Your task to perform on an android device: see sites visited before in the chrome app Image 0: 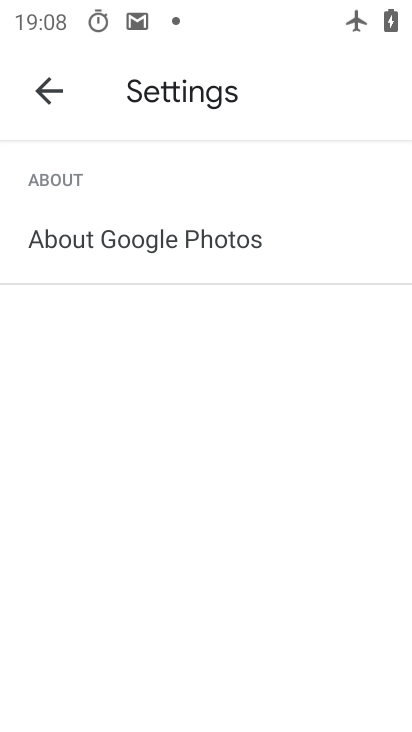
Step 0: press home button
Your task to perform on an android device: see sites visited before in the chrome app Image 1: 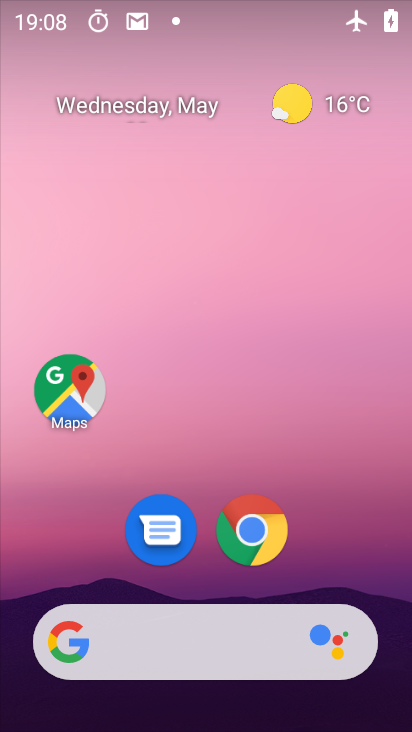
Step 1: click (253, 529)
Your task to perform on an android device: see sites visited before in the chrome app Image 2: 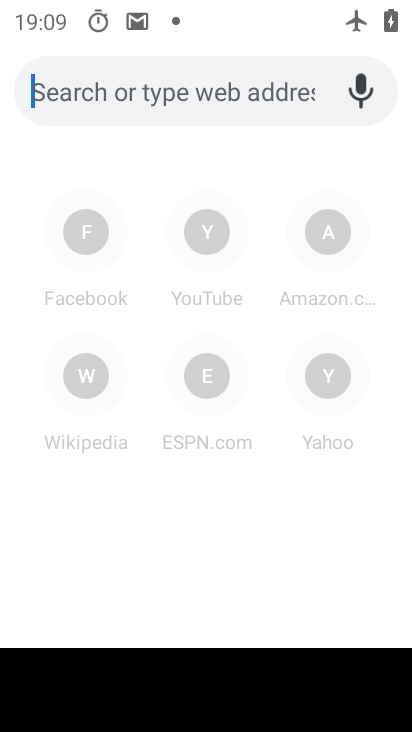
Step 2: click (153, 257)
Your task to perform on an android device: see sites visited before in the chrome app Image 3: 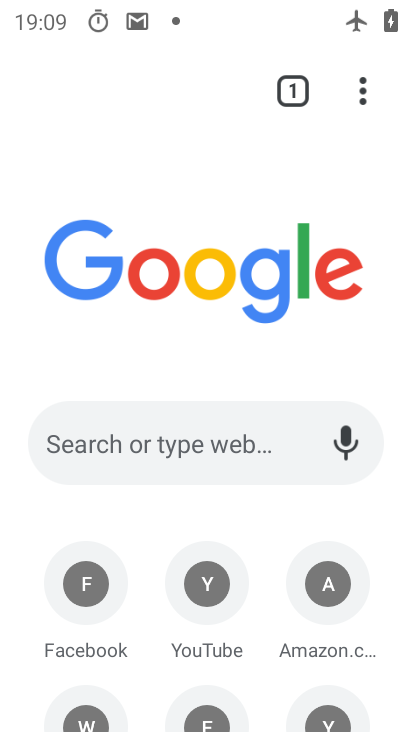
Step 3: click (364, 97)
Your task to perform on an android device: see sites visited before in the chrome app Image 4: 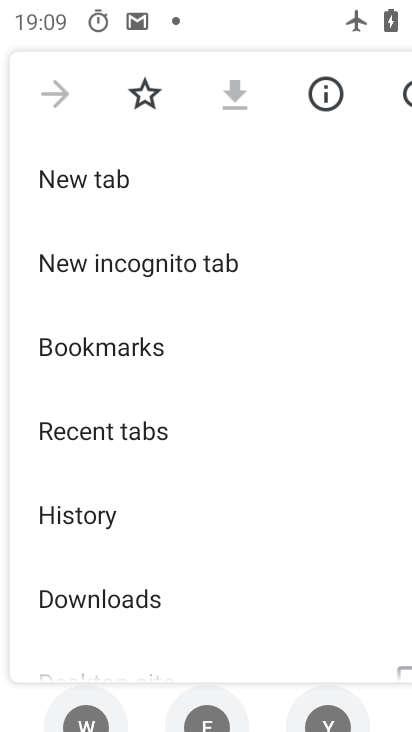
Step 4: click (173, 443)
Your task to perform on an android device: see sites visited before in the chrome app Image 5: 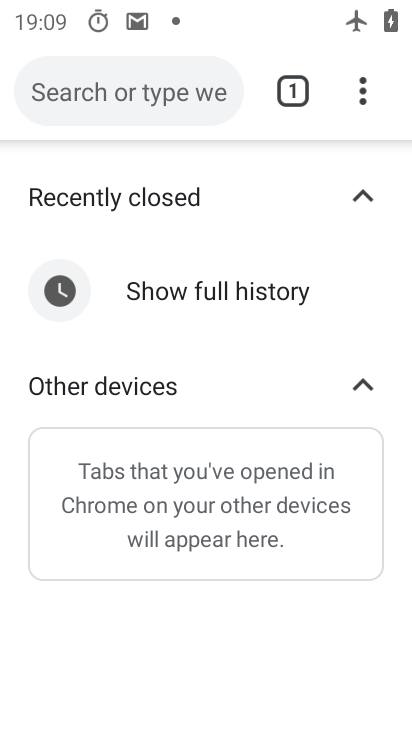
Step 5: click (205, 306)
Your task to perform on an android device: see sites visited before in the chrome app Image 6: 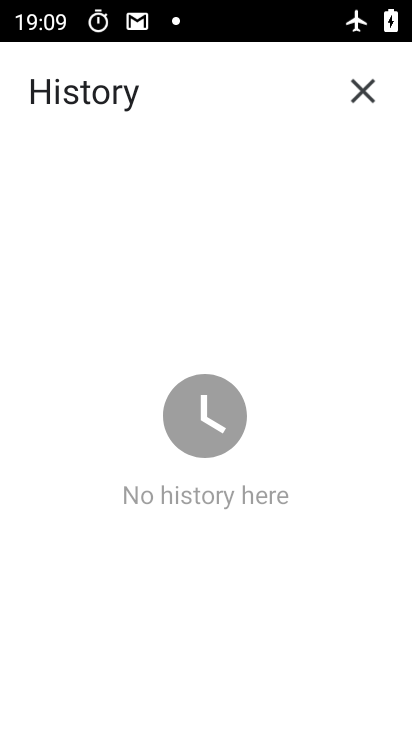
Step 6: task complete